Your task to perform on an android device: Empty the shopping cart on target.com. Search for macbook pro on target.com, select the first entry, add it to the cart, then select checkout. Image 0: 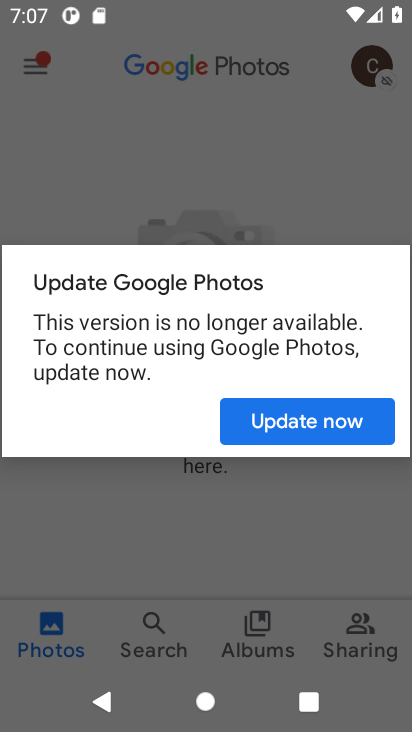
Step 0: press home button
Your task to perform on an android device: Empty the shopping cart on target.com. Search for macbook pro on target.com, select the first entry, add it to the cart, then select checkout. Image 1: 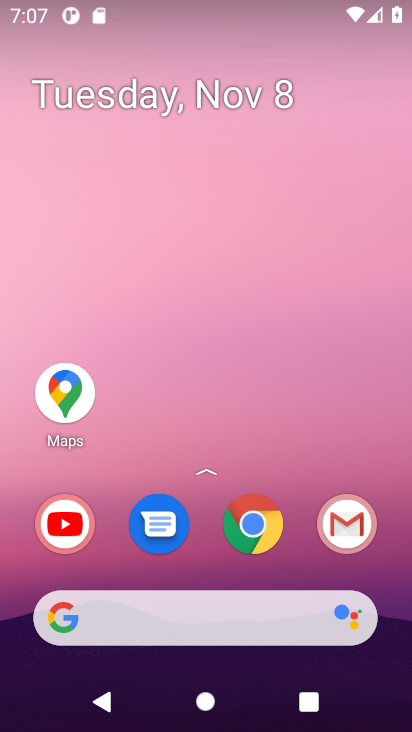
Step 1: click (259, 528)
Your task to perform on an android device: Empty the shopping cart on target.com. Search for macbook pro on target.com, select the first entry, add it to the cart, then select checkout. Image 2: 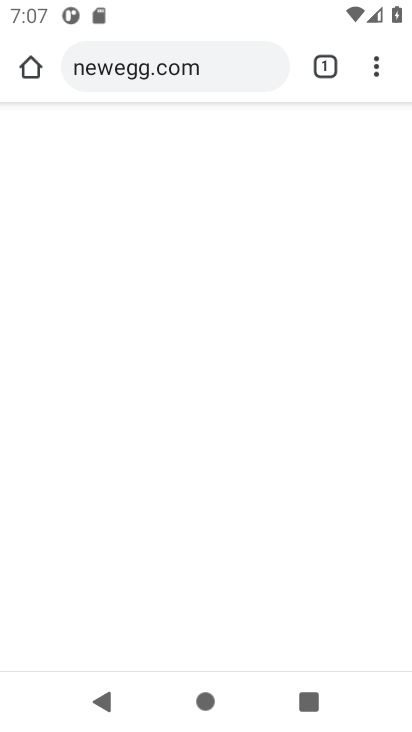
Step 2: click (168, 85)
Your task to perform on an android device: Empty the shopping cart on target.com. Search for macbook pro on target.com, select the first entry, add it to the cart, then select checkout. Image 3: 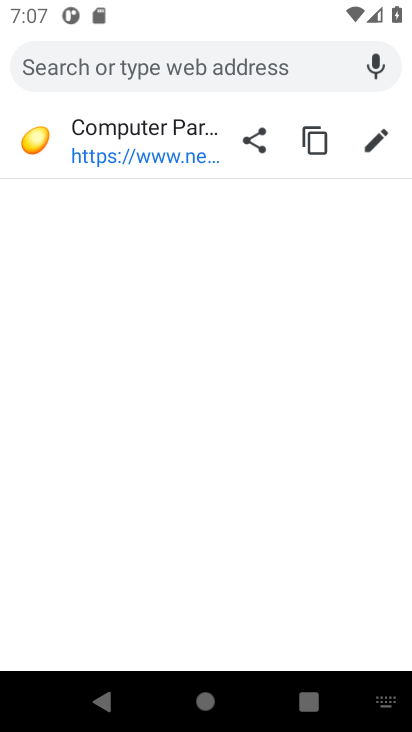
Step 3: type "target.com"
Your task to perform on an android device: Empty the shopping cart on target.com. Search for macbook pro on target.com, select the first entry, add it to the cart, then select checkout. Image 4: 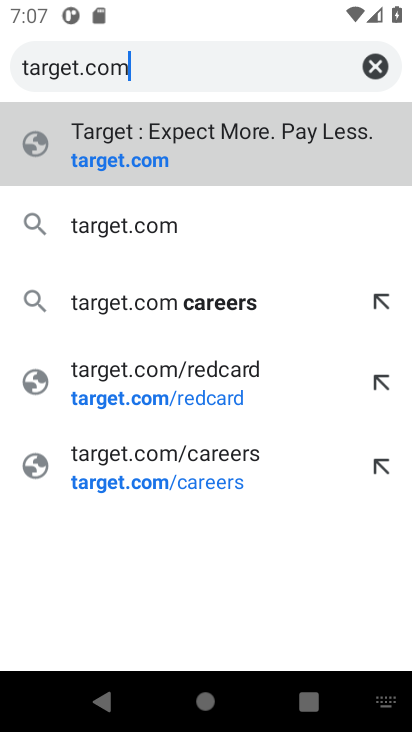
Step 4: click (124, 171)
Your task to perform on an android device: Empty the shopping cart on target.com. Search for macbook pro on target.com, select the first entry, add it to the cart, then select checkout. Image 5: 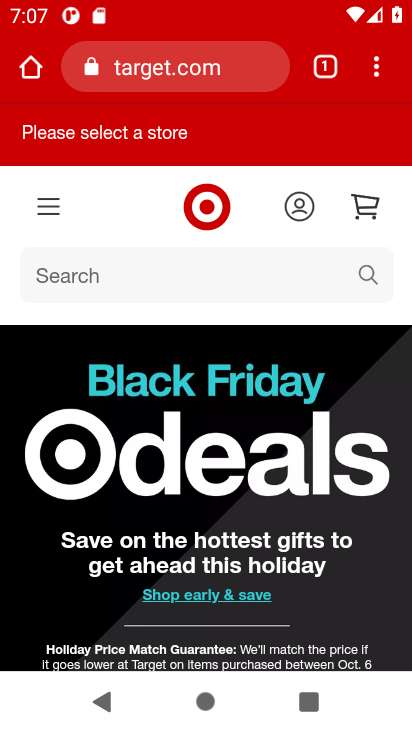
Step 5: click (367, 198)
Your task to perform on an android device: Empty the shopping cart on target.com. Search for macbook pro on target.com, select the first entry, add it to the cart, then select checkout. Image 6: 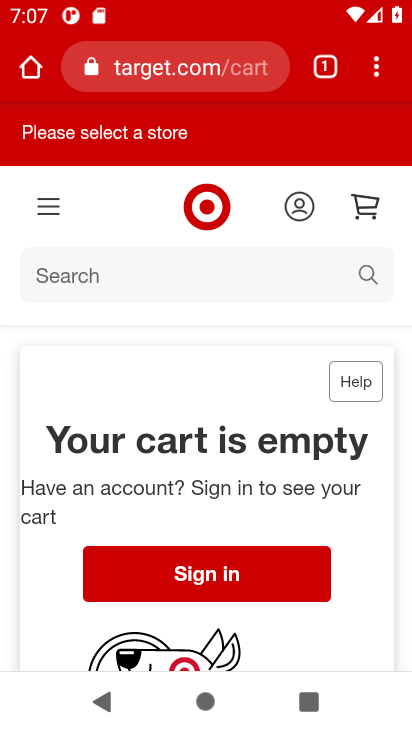
Step 6: click (368, 272)
Your task to perform on an android device: Empty the shopping cart on target.com. Search for macbook pro on target.com, select the first entry, add it to the cart, then select checkout. Image 7: 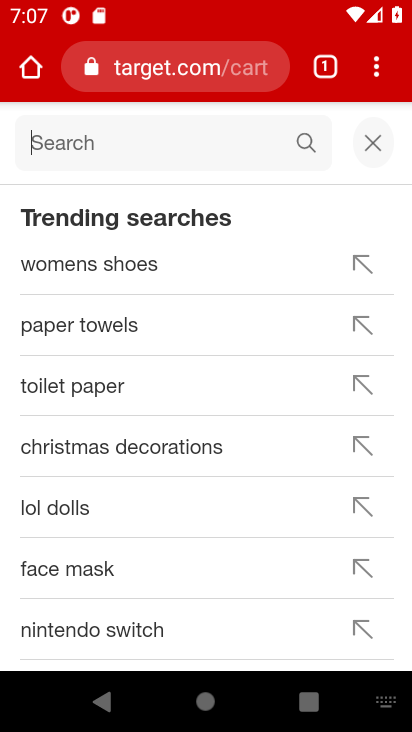
Step 7: type "macbook pro"
Your task to perform on an android device: Empty the shopping cart on target.com. Search for macbook pro on target.com, select the first entry, add it to the cart, then select checkout. Image 8: 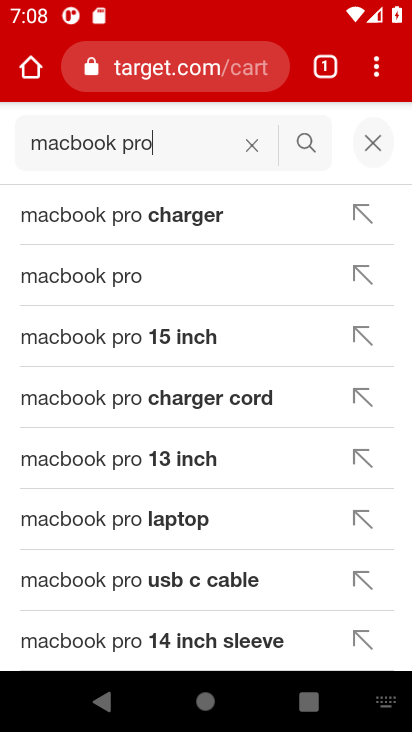
Step 8: click (103, 290)
Your task to perform on an android device: Empty the shopping cart on target.com. Search for macbook pro on target.com, select the first entry, add it to the cart, then select checkout. Image 9: 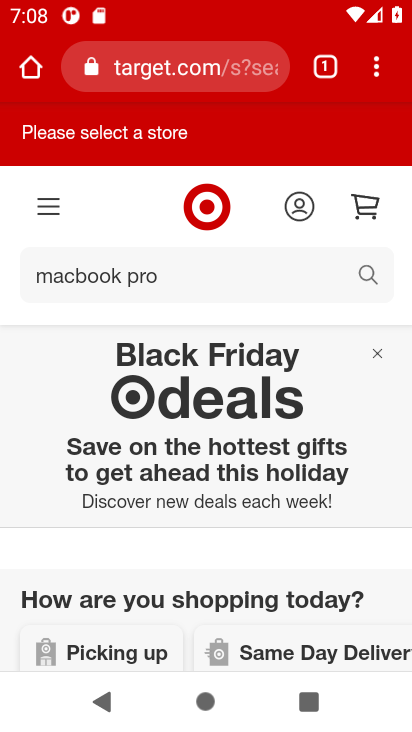
Step 9: task complete